Your task to perform on an android device: What's on my calendar today? Image 0: 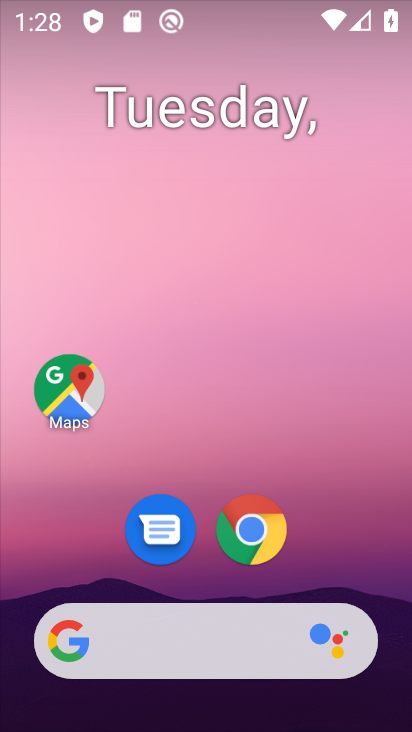
Step 0: drag from (387, 611) to (215, 49)
Your task to perform on an android device: What's on my calendar today? Image 1: 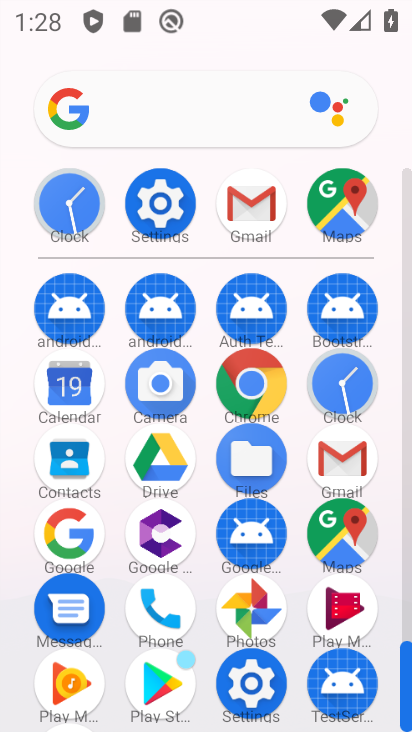
Step 1: click (69, 397)
Your task to perform on an android device: What's on my calendar today? Image 2: 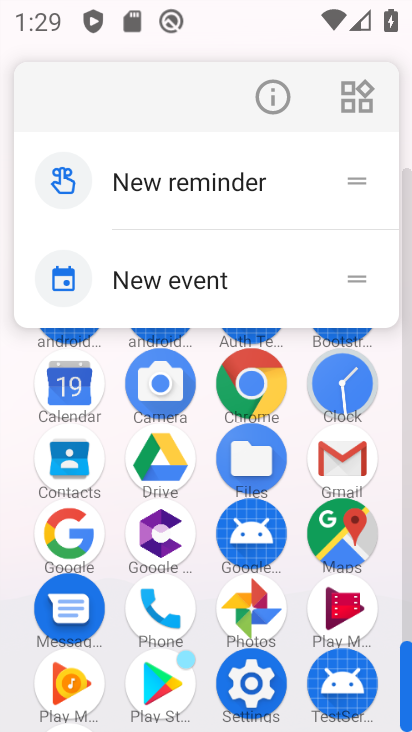
Step 2: click (72, 392)
Your task to perform on an android device: What's on my calendar today? Image 3: 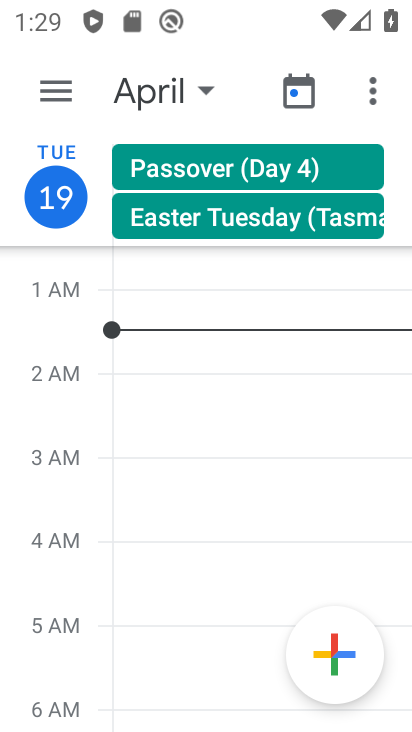
Step 3: click (173, 95)
Your task to perform on an android device: What's on my calendar today? Image 4: 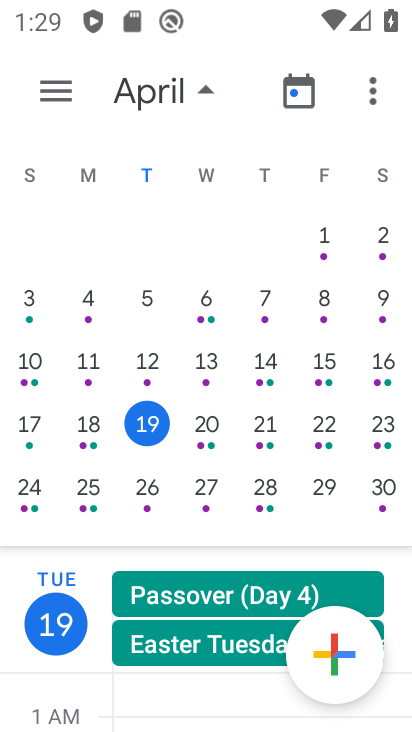
Step 4: click (91, 429)
Your task to perform on an android device: What's on my calendar today? Image 5: 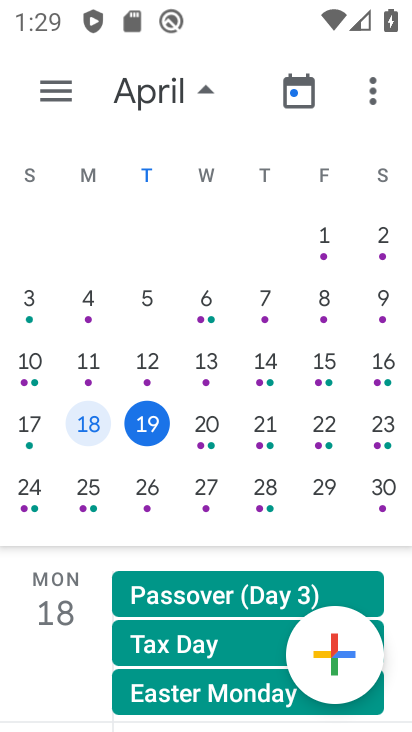
Step 5: click (46, 622)
Your task to perform on an android device: What's on my calendar today? Image 6: 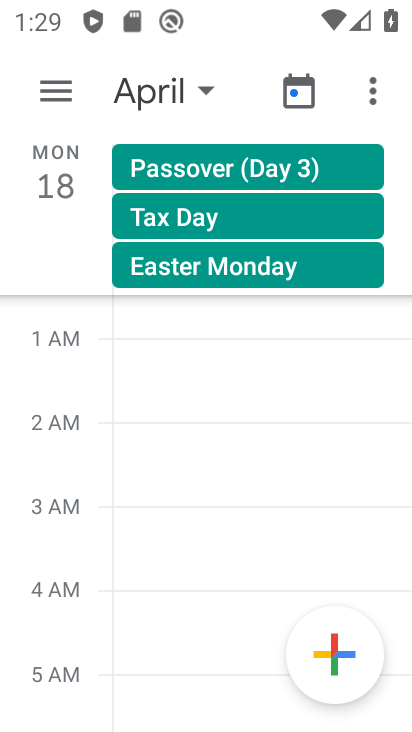
Step 6: task complete